Your task to perform on an android device: open a new tab in the chrome app Image 0: 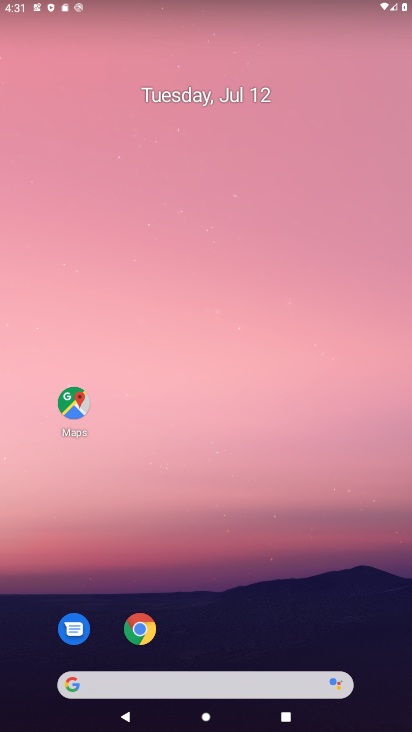
Step 0: press home button
Your task to perform on an android device: open a new tab in the chrome app Image 1: 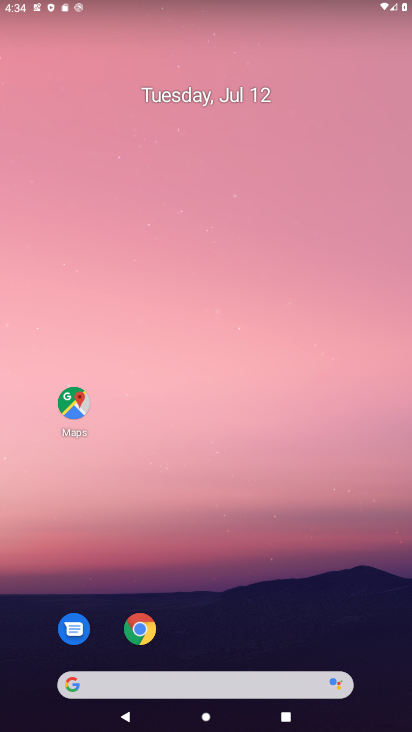
Step 1: press home button
Your task to perform on an android device: open a new tab in the chrome app Image 2: 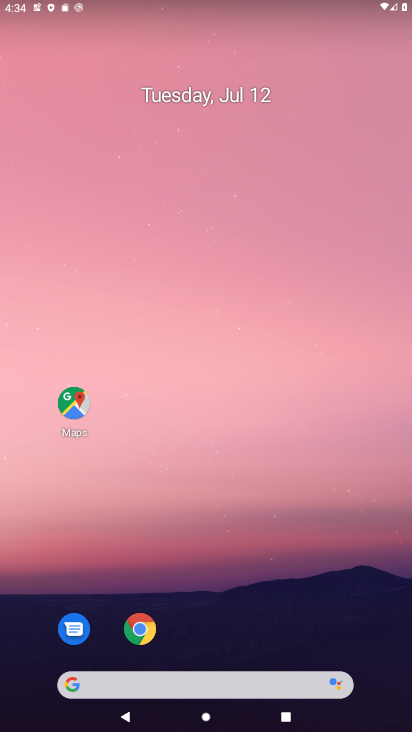
Step 2: drag from (230, 621) to (259, 155)
Your task to perform on an android device: open a new tab in the chrome app Image 3: 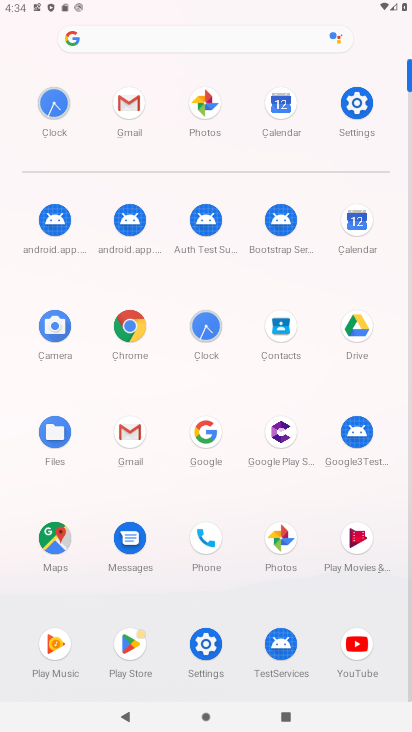
Step 3: click (136, 329)
Your task to perform on an android device: open a new tab in the chrome app Image 4: 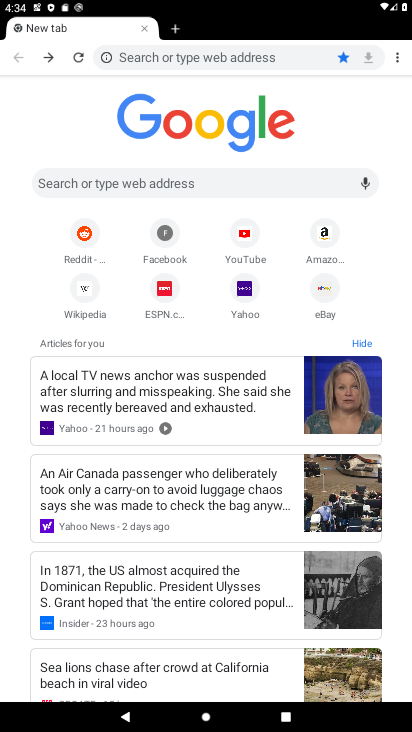
Step 4: click (394, 54)
Your task to perform on an android device: open a new tab in the chrome app Image 5: 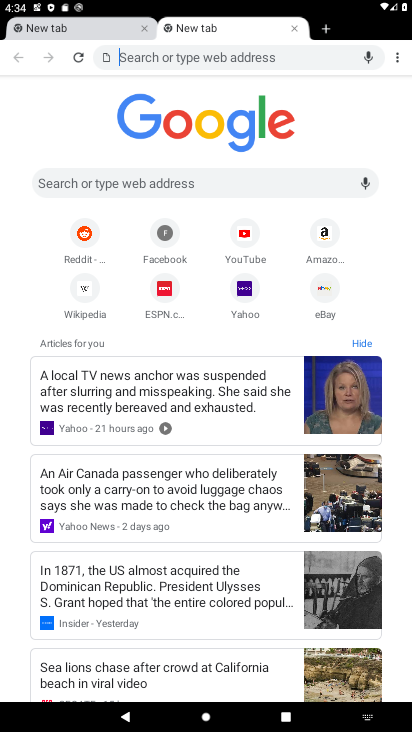
Step 5: task complete